Your task to perform on an android device: Open sound settings Image 0: 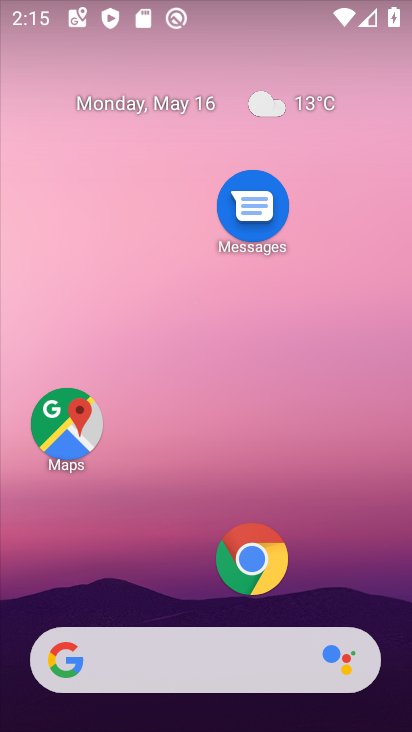
Step 0: drag from (195, 587) to (208, 241)
Your task to perform on an android device: Open sound settings Image 1: 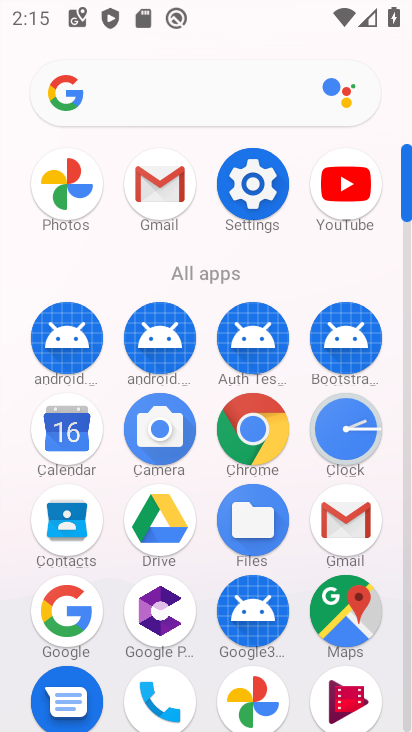
Step 1: click (258, 183)
Your task to perform on an android device: Open sound settings Image 2: 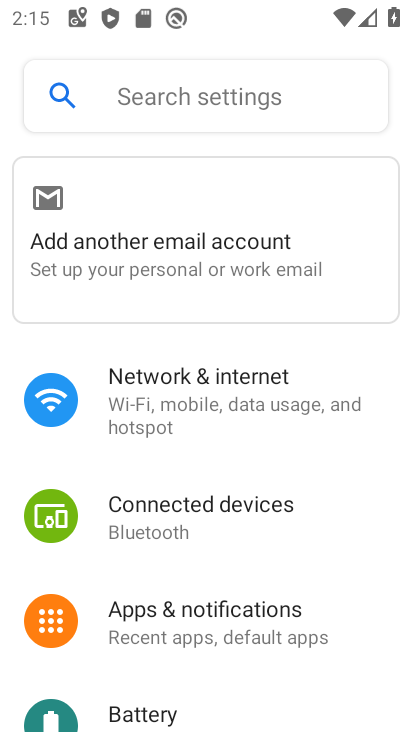
Step 2: drag from (221, 671) to (258, 235)
Your task to perform on an android device: Open sound settings Image 3: 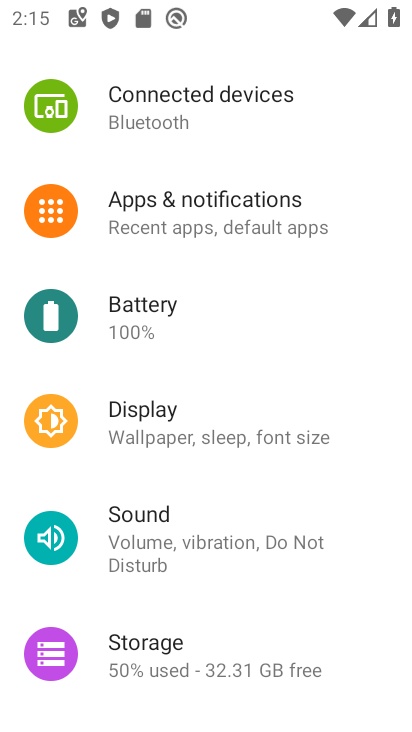
Step 3: click (151, 530)
Your task to perform on an android device: Open sound settings Image 4: 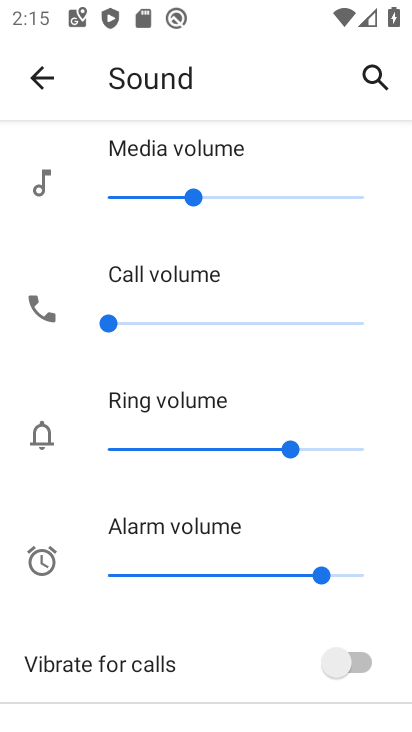
Step 4: task complete